Your task to perform on an android device: turn on sleep mode Image 0: 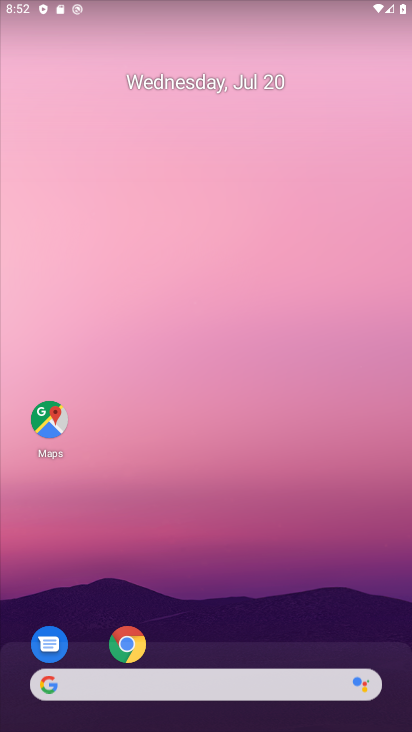
Step 0: drag from (217, 665) to (90, 25)
Your task to perform on an android device: turn on sleep mode Image 1: 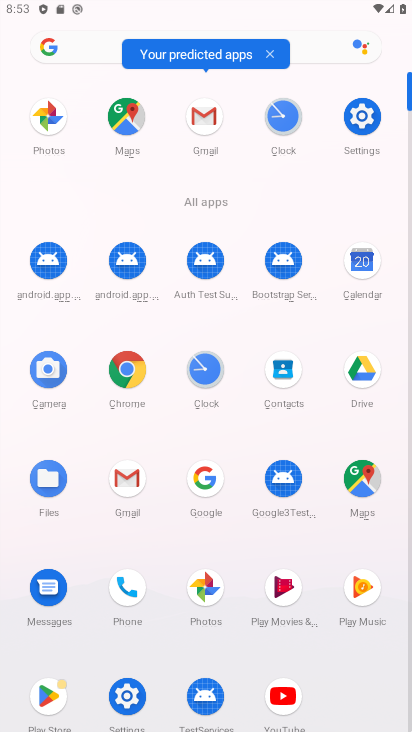
Step 1: click (349, 119)
Your task to perform on an android device: turn on sleep mode Image 2: 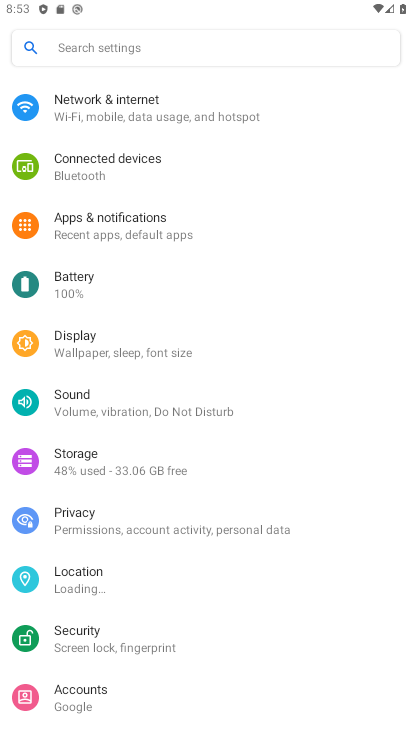
Step 2: task complete